Your task to perform on an android device: turn notification dots on Image 0: 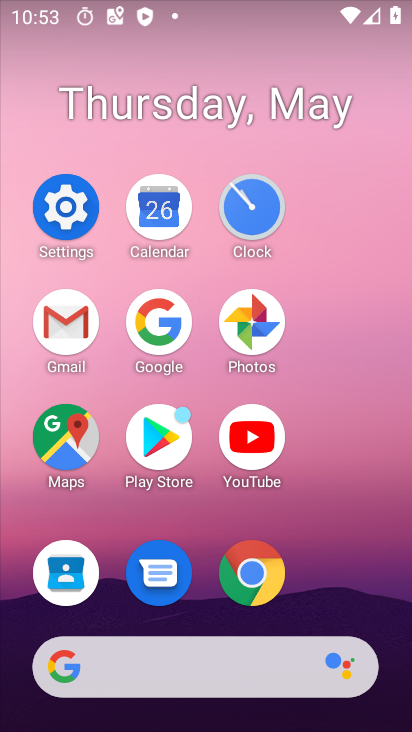
Step 0: click (59, 224)
Your task to perform on an android device: turn notification dots on Image 1: 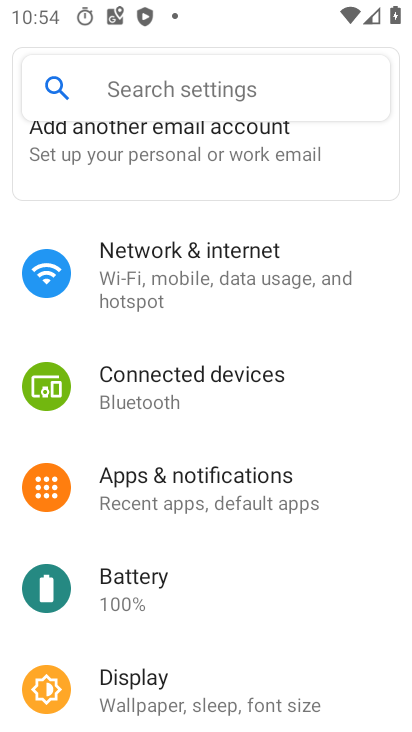
Step 1: click (246, 475)
Your task to perform on an android device: turn notification dots on Image 2: 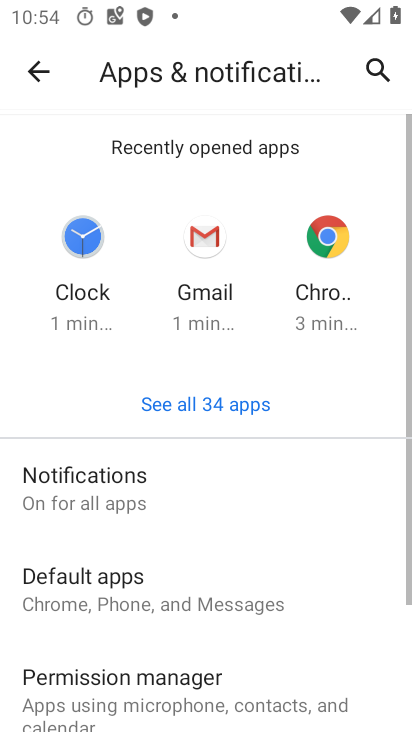
Step 2: drag from (266, 603) to (274, 247)
Your task to perform on an android device: turn notification dots on Image 3: 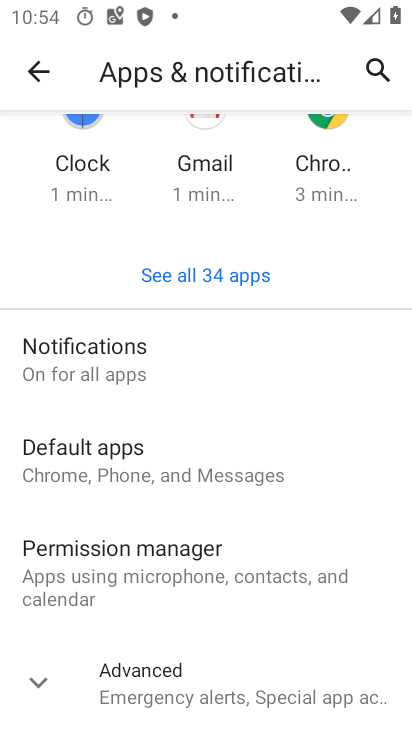
Step 3: click (202, 696)
Your task to perform on an android device: turn notification dots on Image 4: 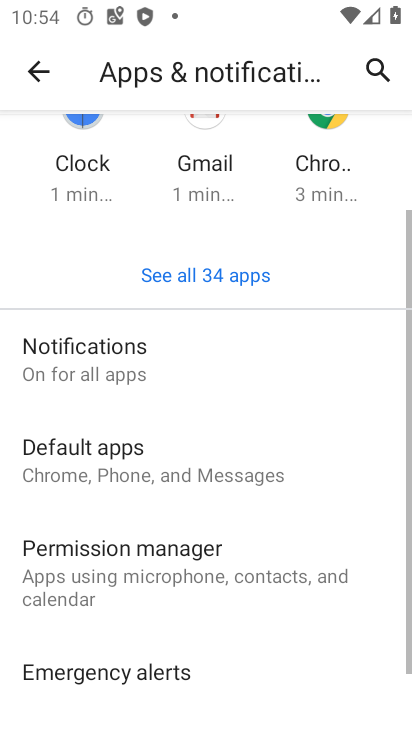
Step 4: drag from (216, 673) to (239, 268)
Your task to perform on an android device: turn notification dots on Image 5: 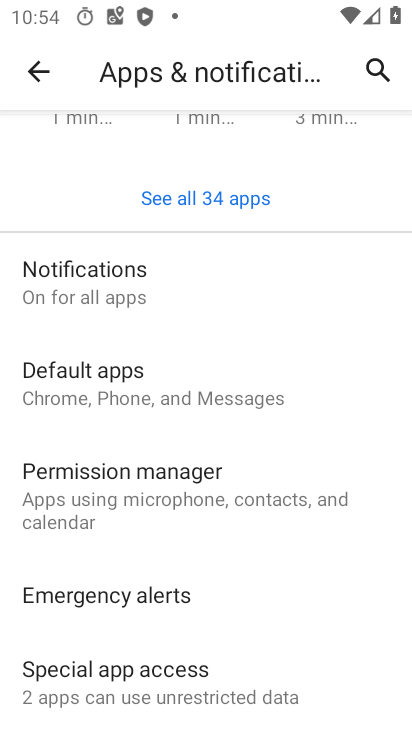
Step 5: click (176, 290)
Your task to perform on an android device: turn notification dots on Image 6: 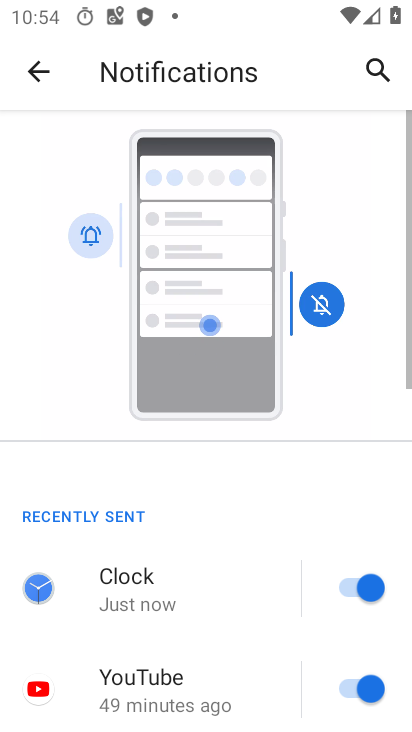
Step 6: drag from (258, 611) to (250, 207)
Your task to perform on an android device: turn notification dots on Image 7: 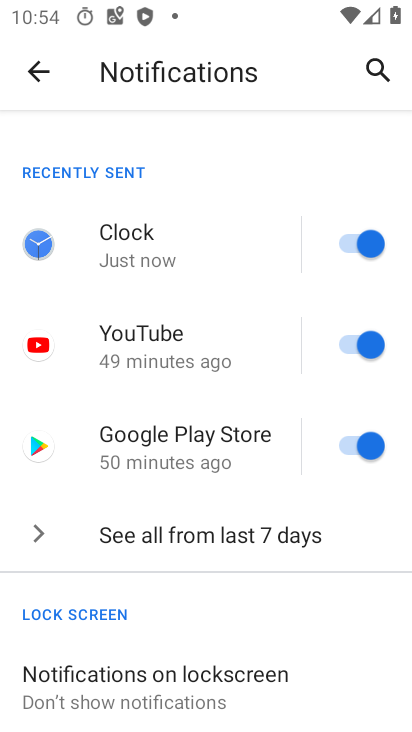
Step 7: drag from (282, 637) to (262, 279)
Your task to perform on an android device: turn notification dots on Image 8: 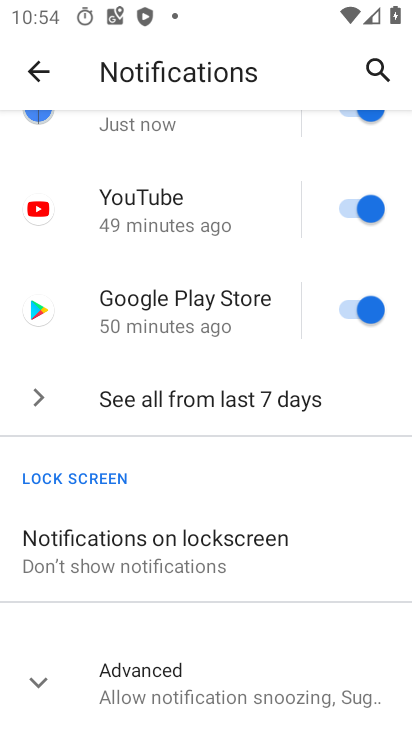
Step 8: click (213, 669)
Your task to perform on an android device: turn notification dots on Image 9: 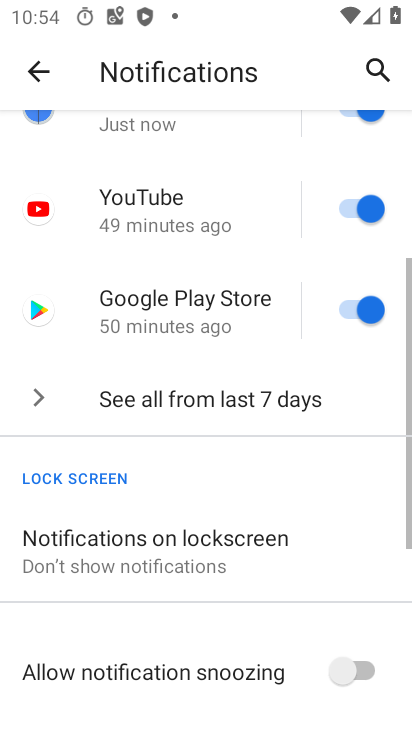
Step 9: task complete